Your task to perform on an android device: Show me popular videos on Youtube Image 0: 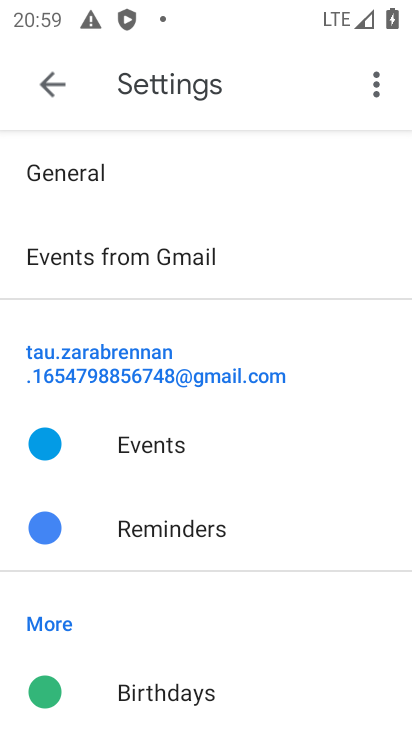
Step 0: press home button
Your task to perform on an android device: Show me popular videos on Youtube Image 1: 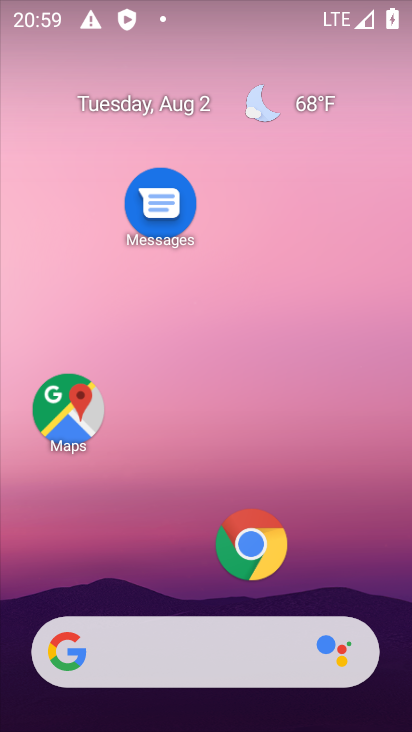
Step 1: drag from (201, 582) to (251, 140)
Your task to perform on an android device: Show me popular videos on Youtube Image 2: 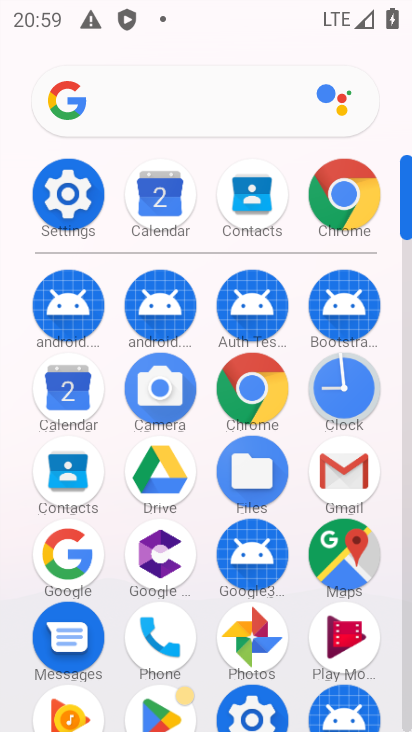
Step 2: drag from (194, 601) to (206, 149)
Your task to perform on an android device: Show me popular videos on Youtube Image 3: 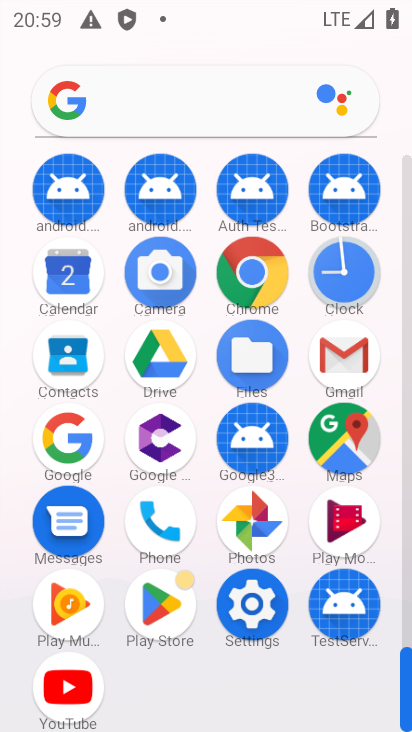
Step 3: click (63, 678)
Your task to perform on an android device: Show me popular videos on Youtube Image 4: 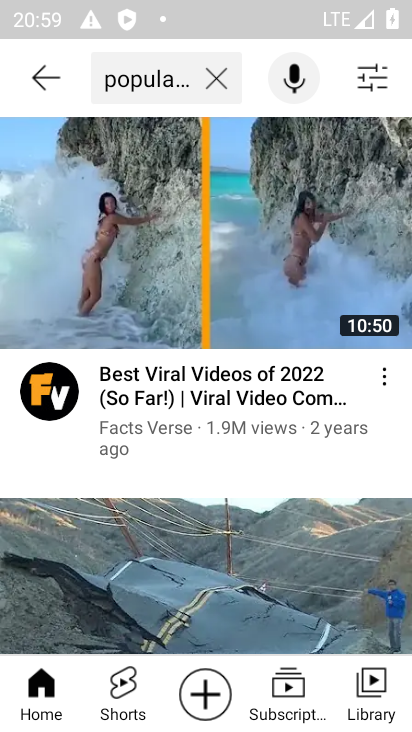
Step 4: task complete